Your task to perform on an android device: Open sound settings Image 0: 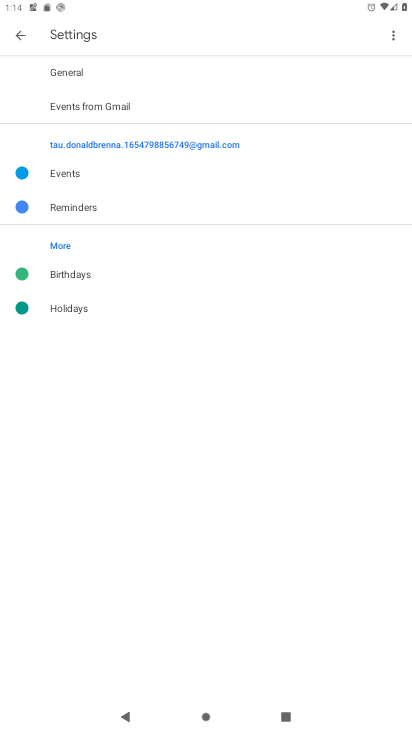
Step 0: press home button
Your task to perform on an android device: Open sound settings Image 1: 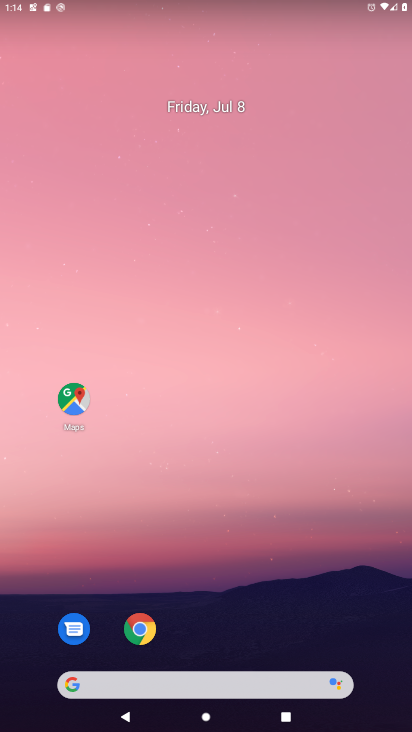
Step 1: drag from (295, 606) to (238, 170)
Your task to perform on an android device: Open sound settings Image 2: 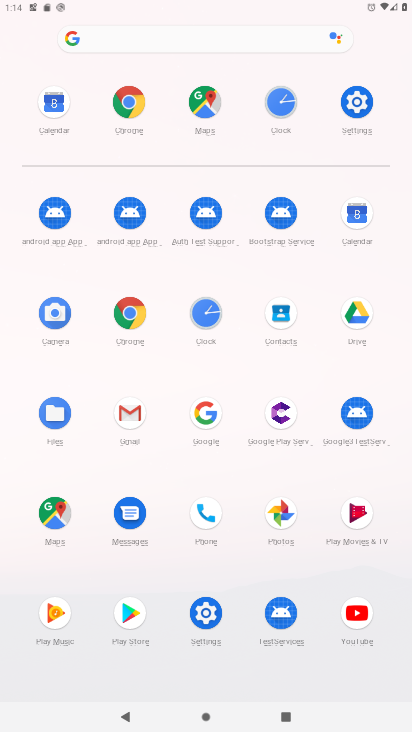
Step 2: click (360, 114)
Your task to perform on an android device: Open sound settings Image 3: 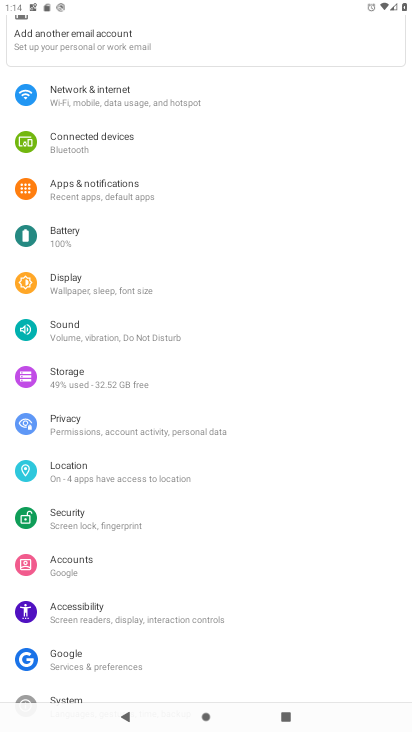
Step 3: click (81, 342)
Your task to perform on an android device: Open sound settings Image 4: 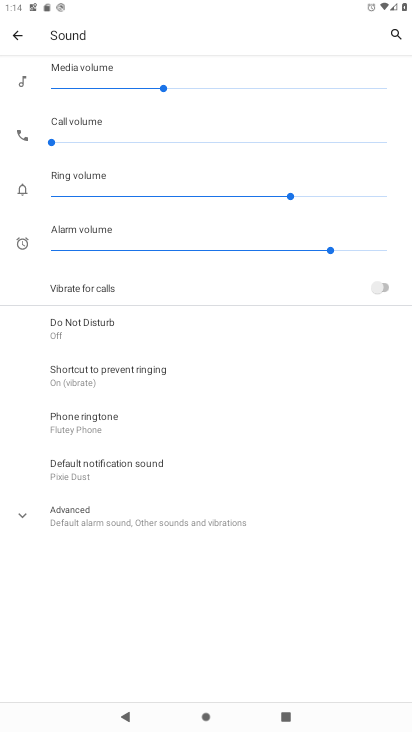
Step 4: task complete